Your task to perform on an android device: When is my next meeting? Image 0: 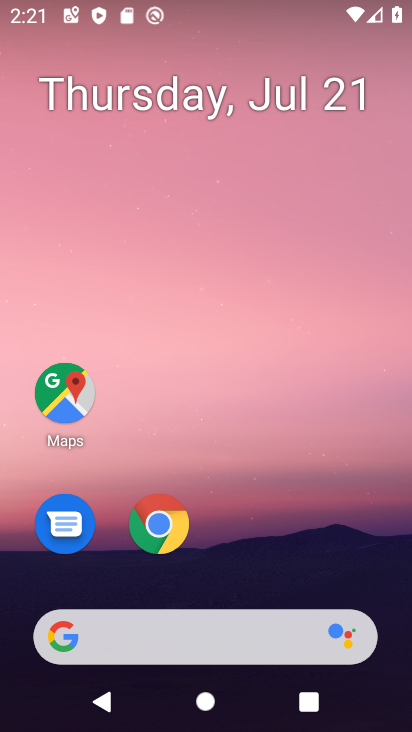
Step 0: drag from (228, 535) to (241, 41)
Your task to perform on an android device: When is my next meeting? Image 1: 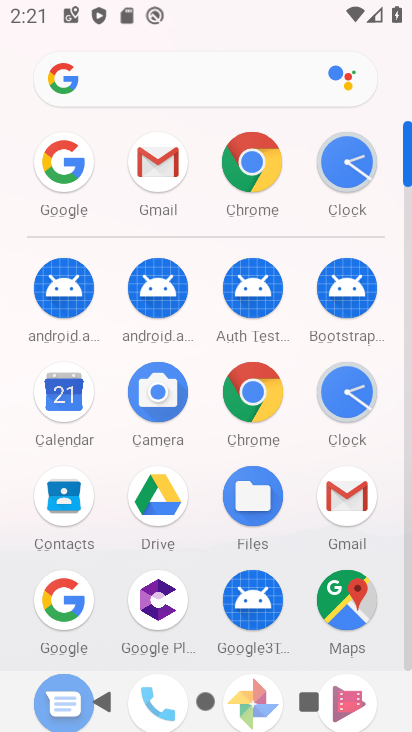
Step 1: click (69, 388)
Your task to perform on an android device: When is my next meeting? Image 2: 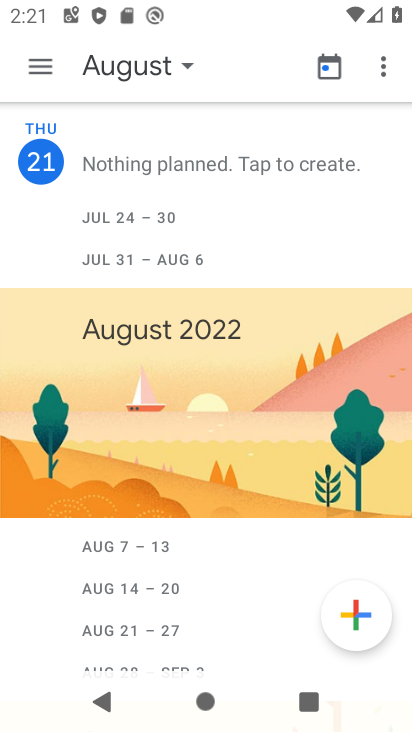
Step 2: task complete